Your task to perform on an android device: Turn off the flashlight Image 0: 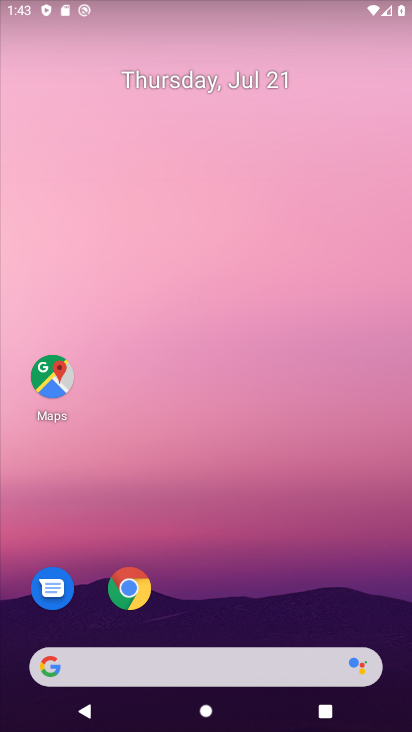
Step 0: drag from (198, 535) to (304, 160)
Your task to perform on an android device: Turn off the flashlight Image 1: 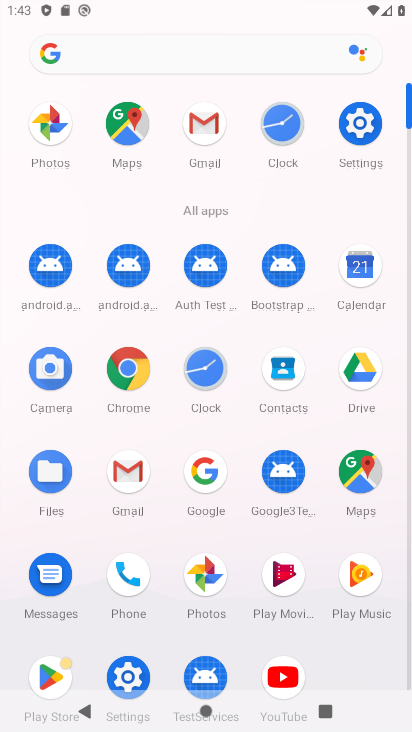
Step 1: click (345, 116)
Your task to perform on an android device: Turn off the flashlight Image 2: 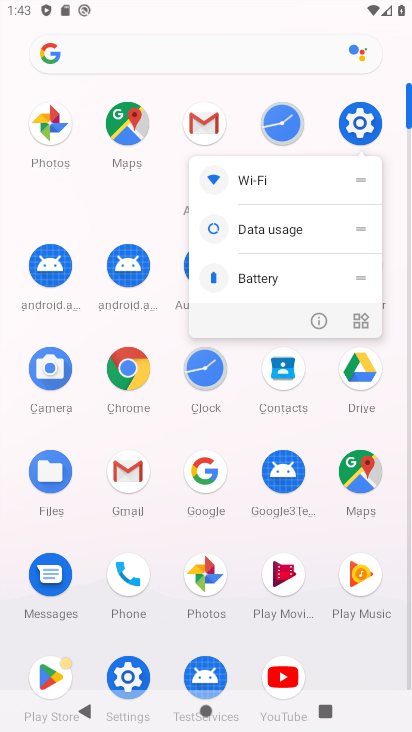
Step 2: click (317, 320)
Your task to perform on an android device: Turn off the flashlight Image 3: 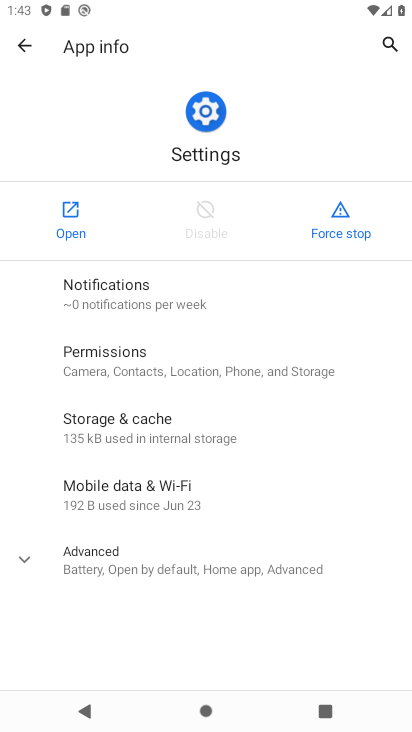
Step 3: click (69, 207)
Your task to perform on an android device: Turn off the flashlight Image 4: 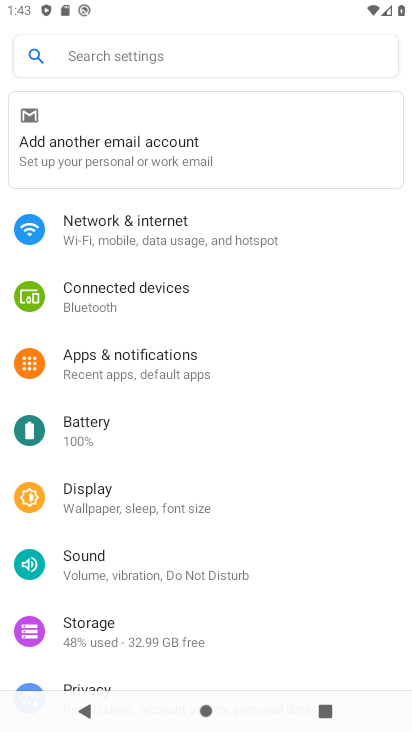
Step 4: click (82, 54)
Your task to perform on an android device: Turn off the flashlight Image 5: 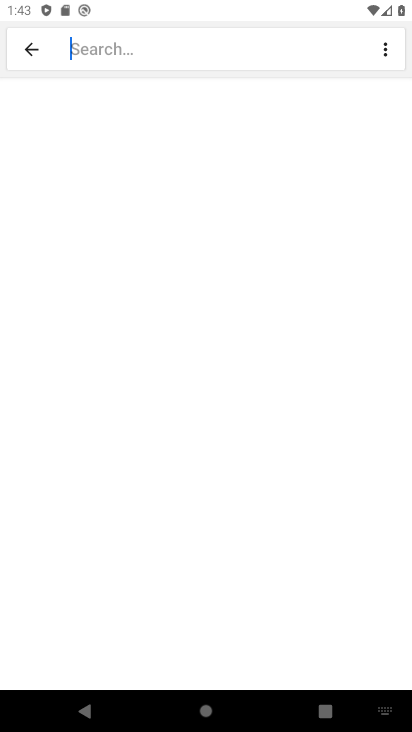
Step 5: type "flashlight"
Your task to perform on an android device: Turn off the flashlight Image 6: 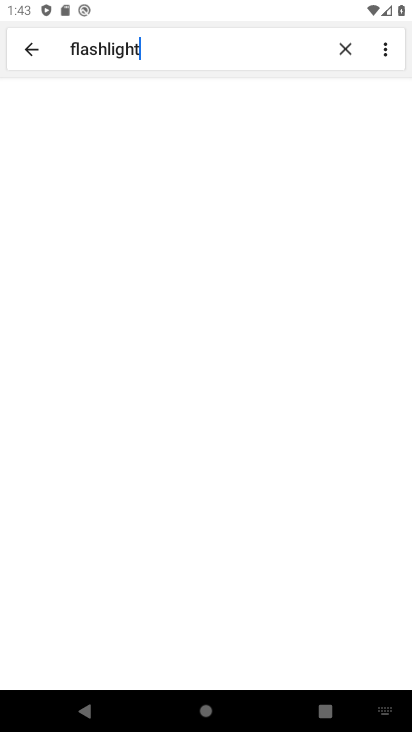
Step 6: type ""
Your task to perform on an android device: Turn off the flashlight Image 7: 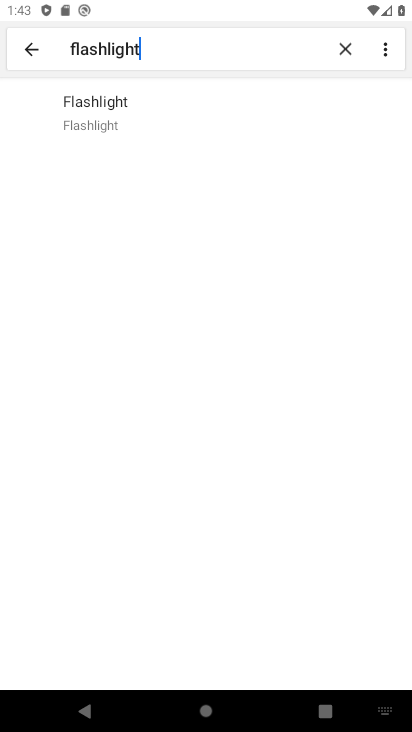
Step 7: click (176, 91)
Your task to perform on an android device: Turn off the flashlight Image 8: 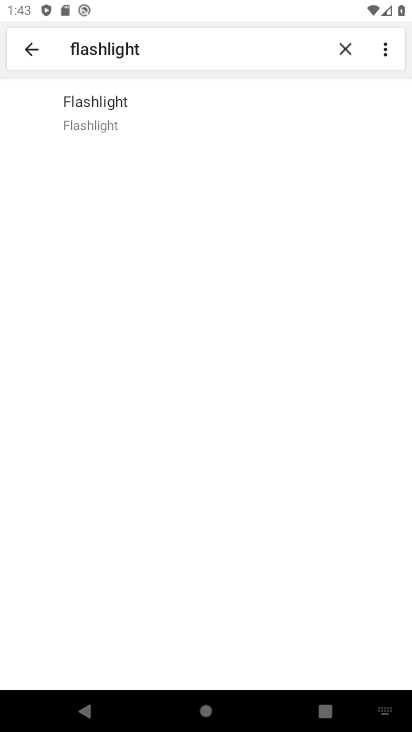
Step 8: click (168, 95)
Your task to perform on an android device: Turn off the flashlight Image 9: 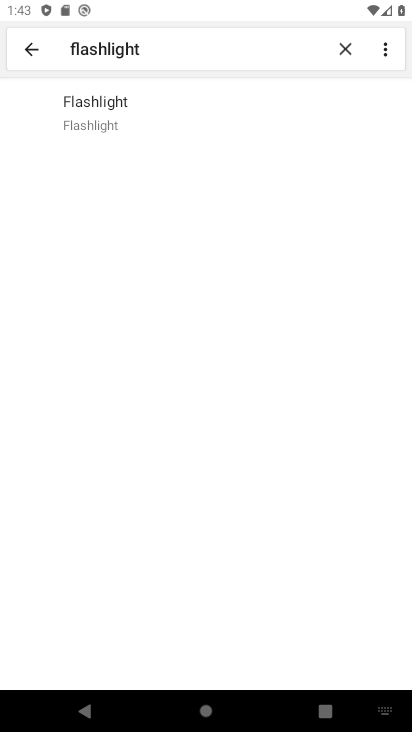
Step 9: click (168, 95)
Your task to perform on an android device: Turn off the flashlight Image 10: 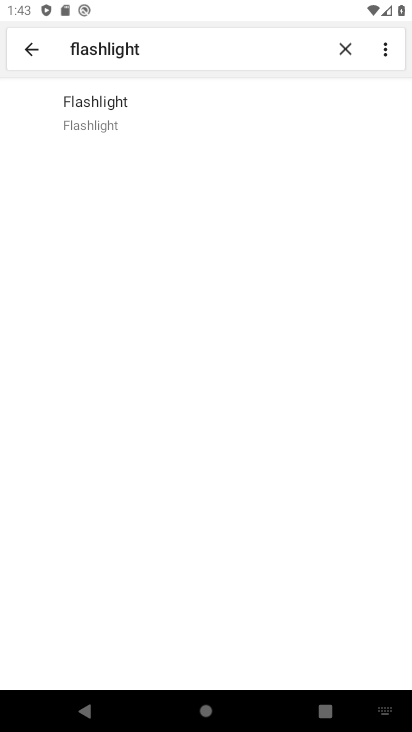
Step 10: task complete